Your task to perform on an android device: turn on location history Image 0: 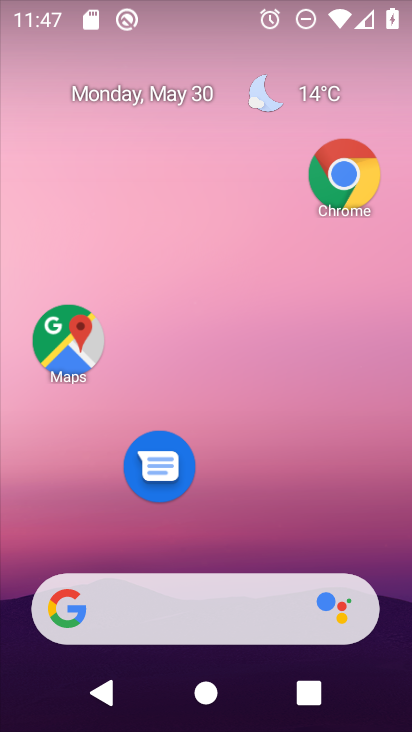
Step 0: drag from (295, 498) to (209, 77)
Your task to perform on an android device: turn on location history Image 1: 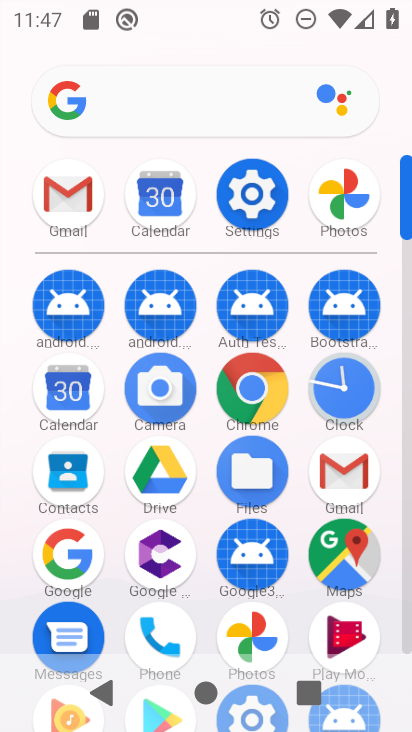
Step 1: click (239, 190)
Your task to perform on an android device: turn on location history Image 2: 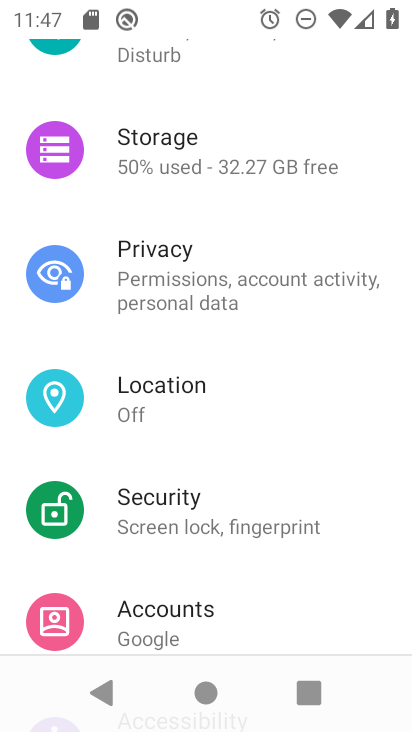
Step 2: click (217, 405)
Your task to perform on an android device: turn on location history Image 3: 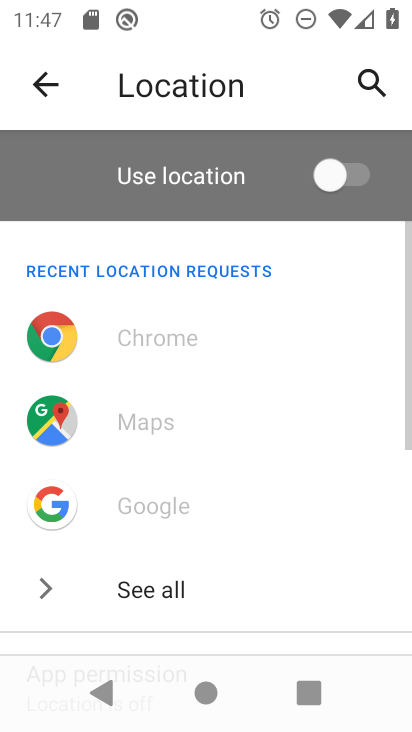
Step 3: drag from (204, 442) to (248, 87)
Your task to perform on an android device: turn on location history Image 4: 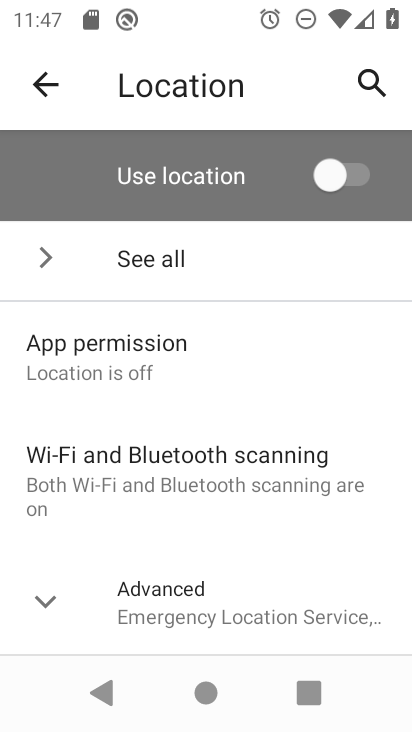
Step 4: click (255, 602)
Your task to perform on an android device: turn on location history Image 5: 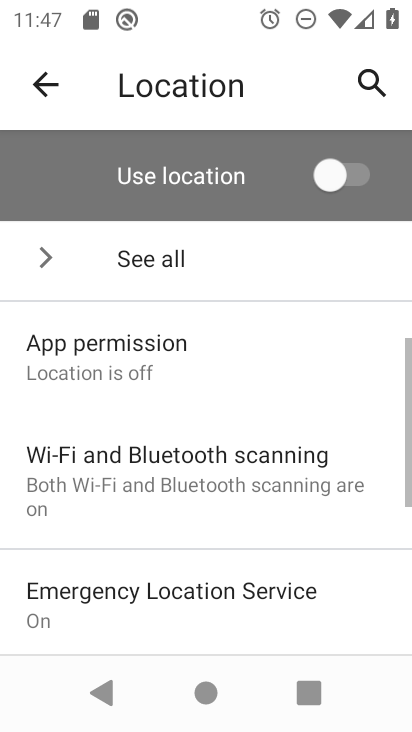
Step 5: drag from (255, 602) to (246, 212)
Your task to perform on an android device: turn on location history Image 6: 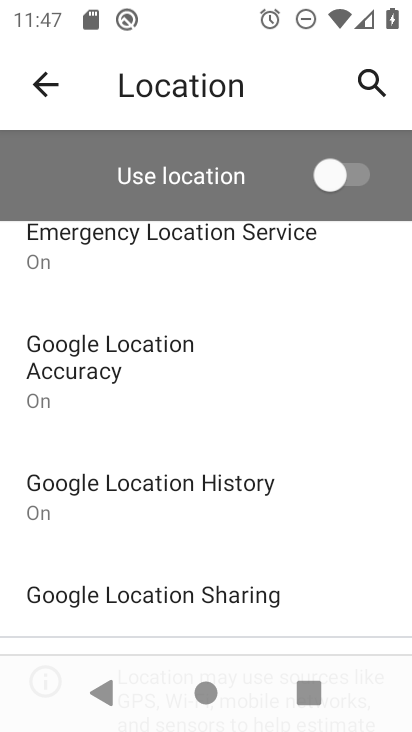
Step 6: click (232, 495)
Your task to perform on an android device: turn on location history Image 7: 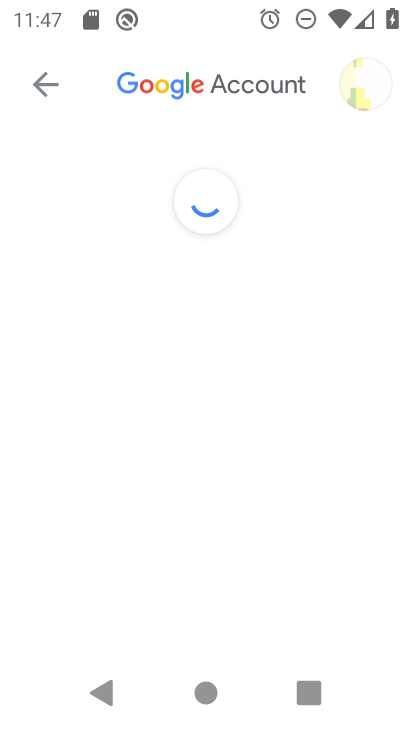
Step 7: task complete